Your task to perform on an android device: uninstall "Yahoo Mail" Image 0: 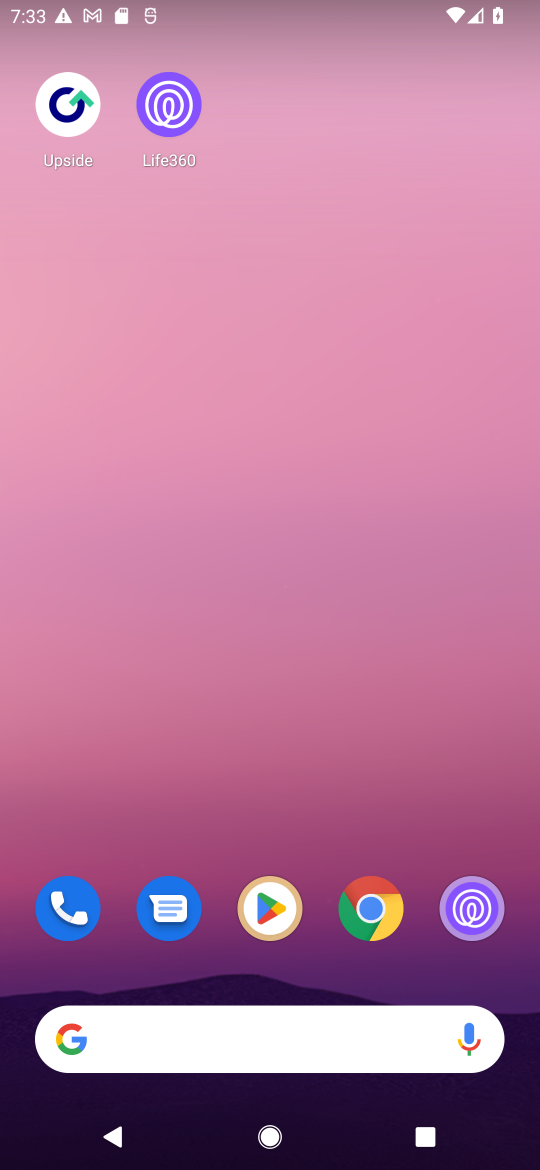
Step 0: drag from (210, 1008) to (267, 119)
Your task to perform on an android device: uninstall "Yahoo Mail" Image 1: 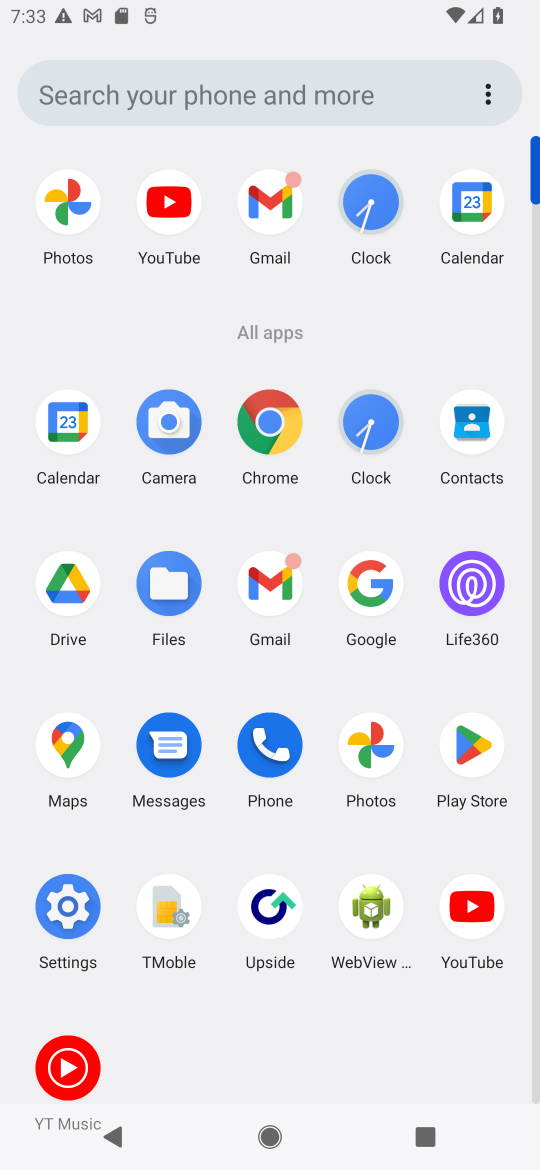
Step 1: click (469, 750)
Your task to perform on an android device: uninstall "Yahoo Mail" Image 2: 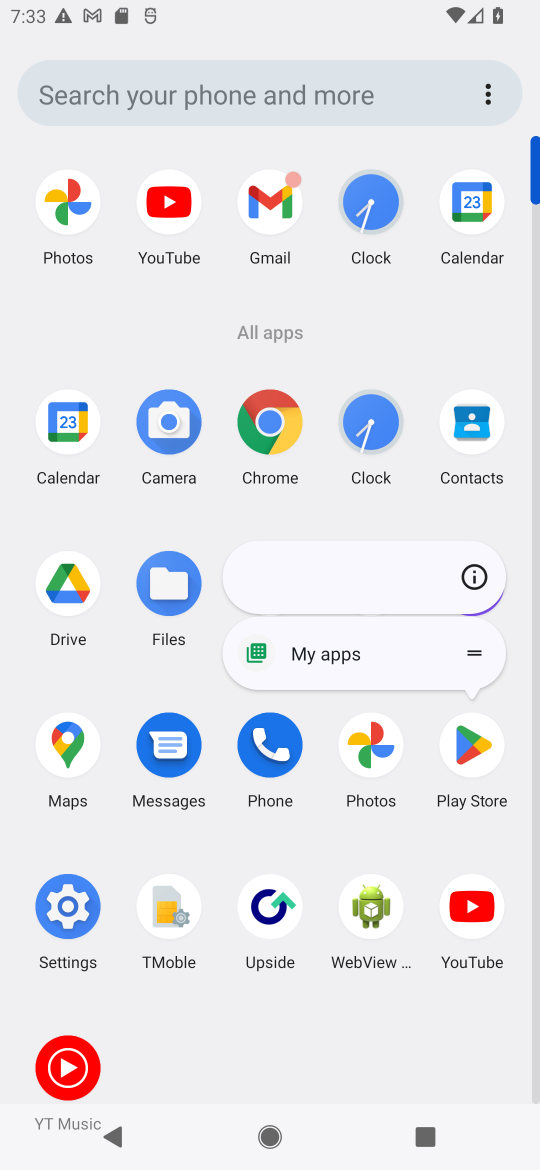
Step 2: click (479, 760)
Your task to perform on an android device: uninstall "Yahoo Mail" Image 3: 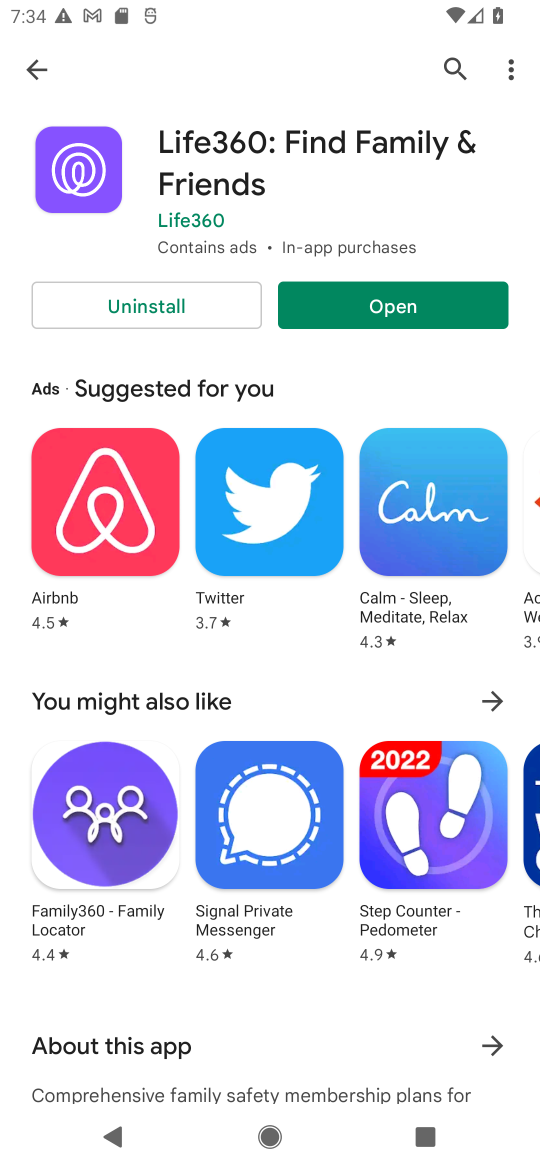
Step 3: click (442, 72)
Your task to perform on an android device: uninstall "Yahoo Mail" Image 4: 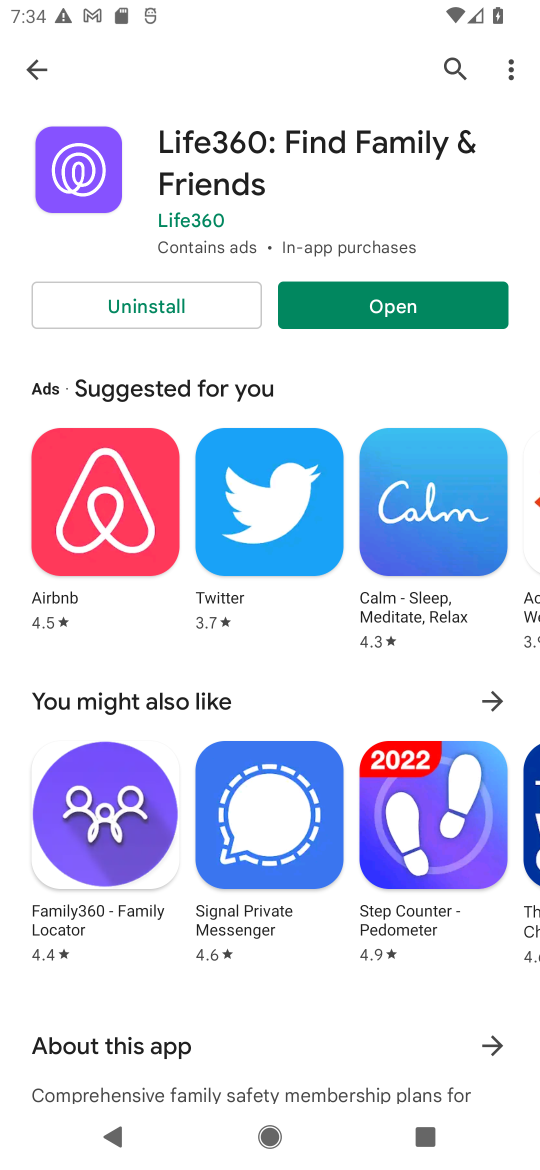
Step 4: click (447, 71)
Your task to perform on an android device: uninstall "Yahoo Mail" Image 5: 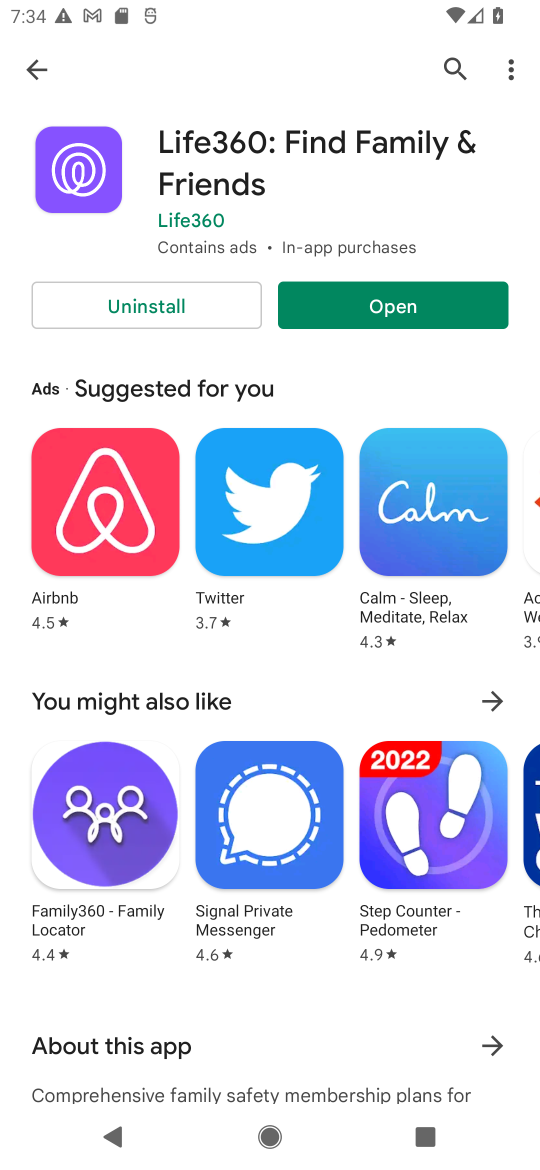
Step 5: click (455, 68)
Your task to perform on an android device: uninstall "Yahoo Mail" Image 6: 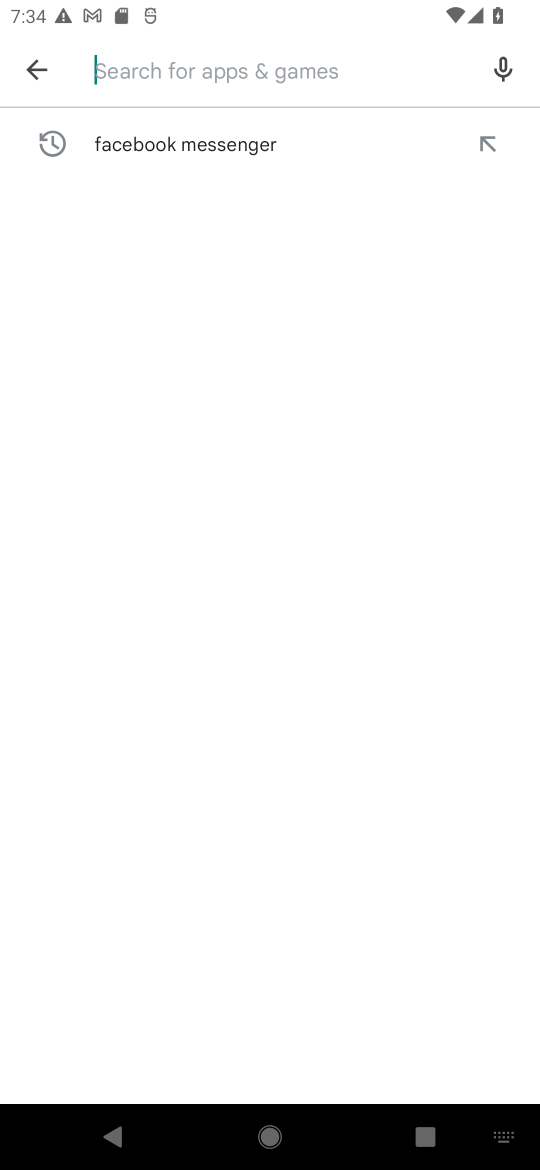
Step 6: type "Yahoo Mail"
Your task to perform on an android device: uninstall "Yahoo Mail" Image 7: 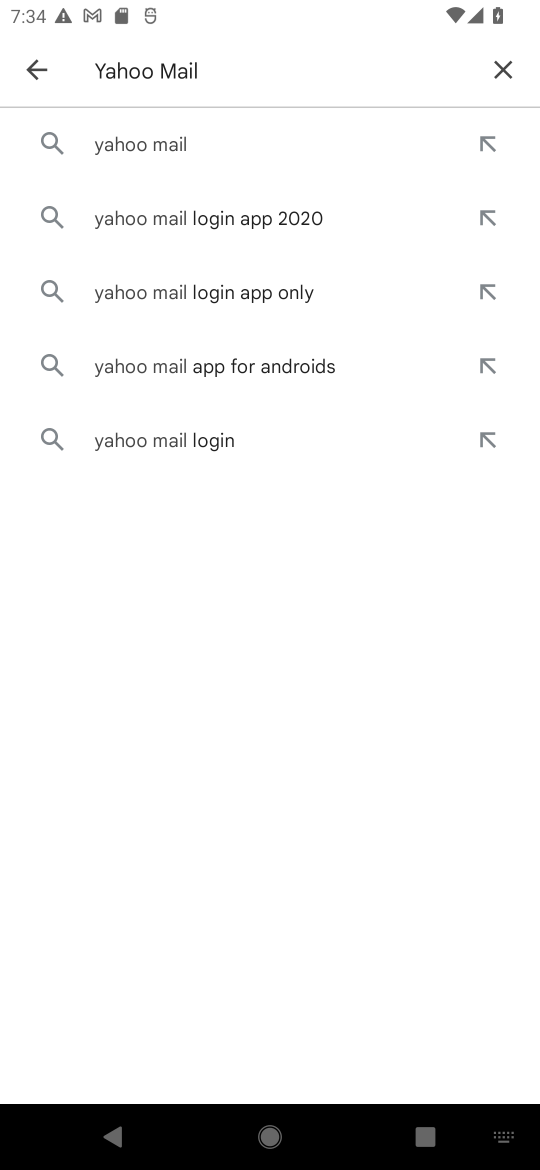
Step 7: click (141, 151)
Your task to perform on an android device: uninstall "Yahoo Mail" Image 8: 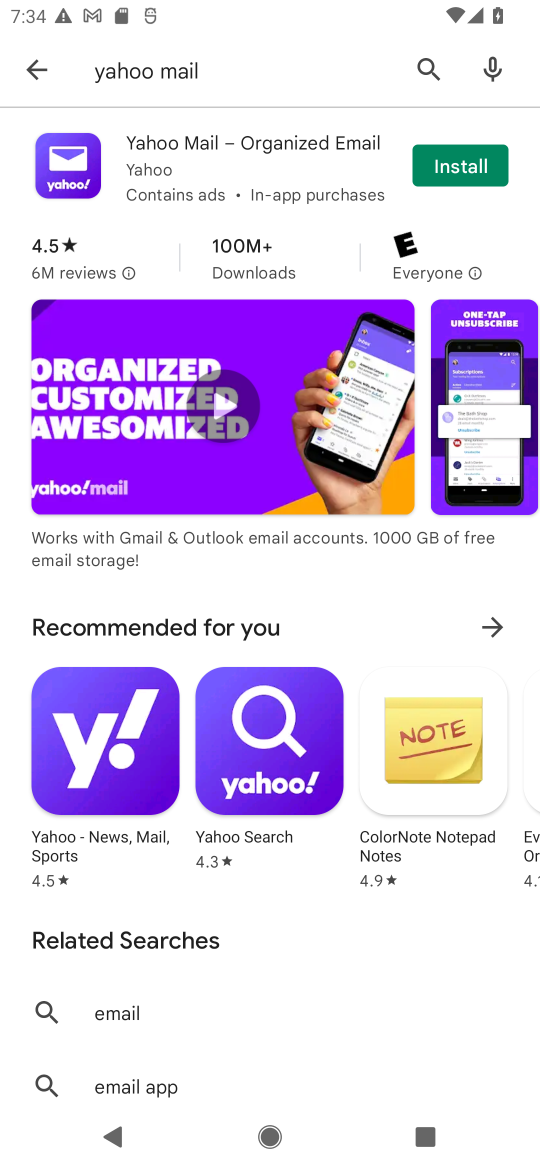
Step 8: click (461, 168)
Your task to perform on an android device: uninstall "Yahoo Mail" Image 9: 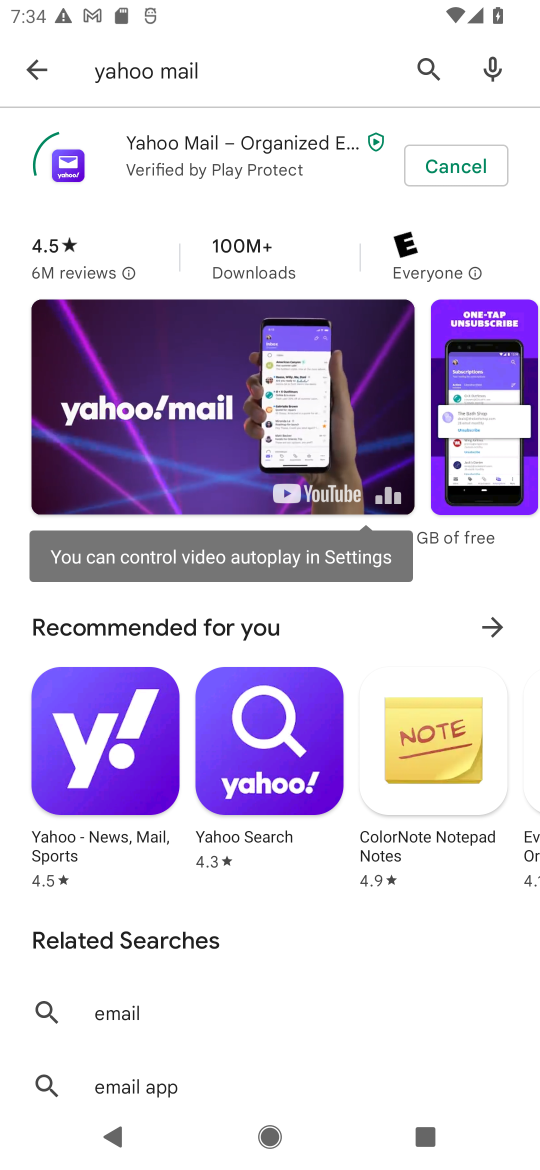
Step 9: click (459, 160)
Your task to perform on an android device: uninstall "Yahoo Mail" Image 10: 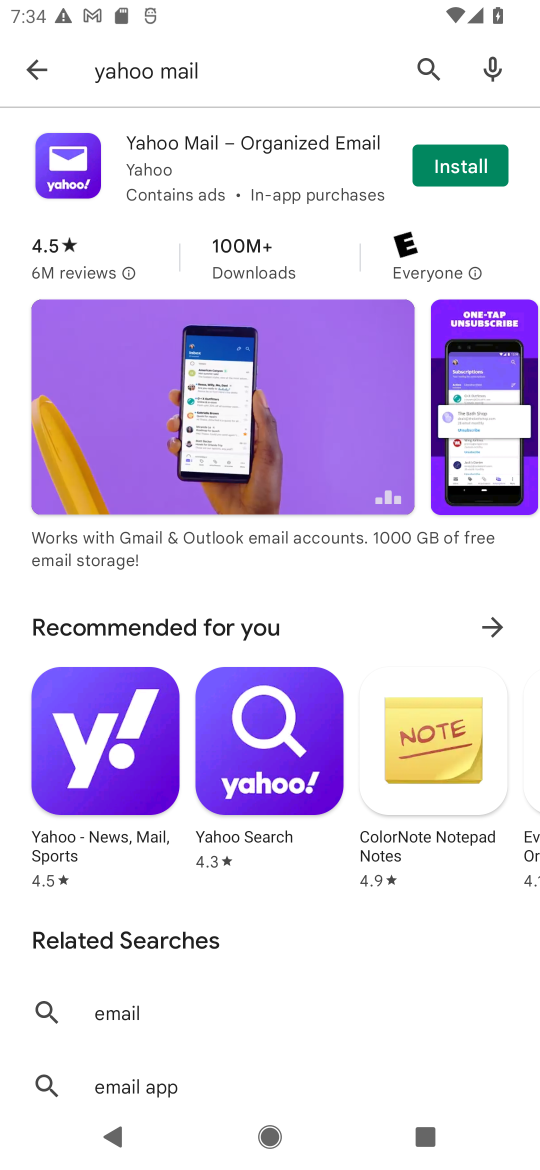
Step 10: task complete